Your task to perform on an android device: What is the news today? Image 0: 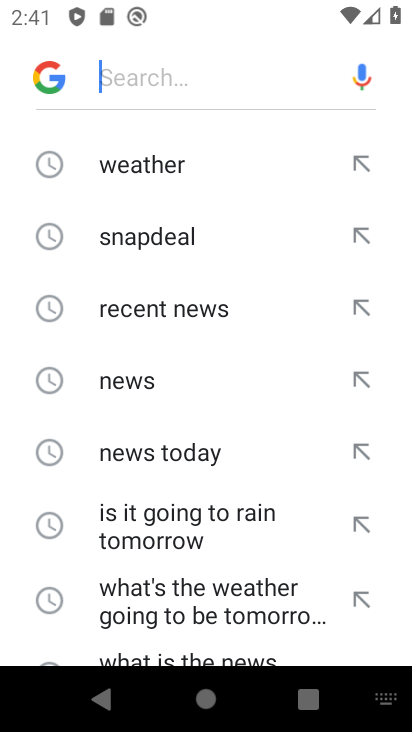
Step 0: click (140, 379)
Your task to perform on an android device: What is the news today? Image 1: 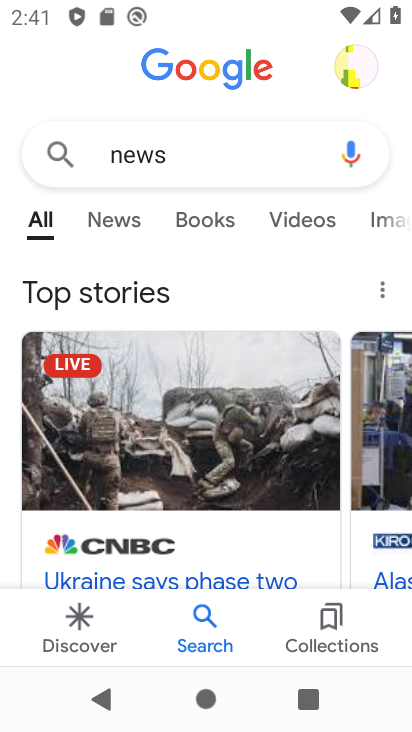
Step 1: task complete